Your task to perform on an android device: toggle sleep mode Image 0: 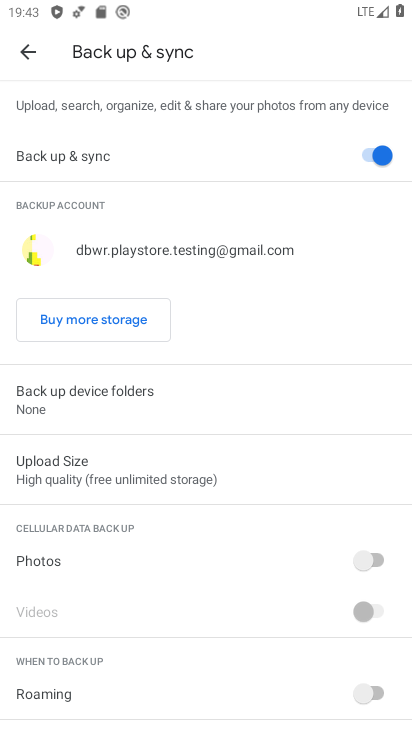
Step 0: press home button
Your task to perform on an android device: toggle sleep mode Image 1: 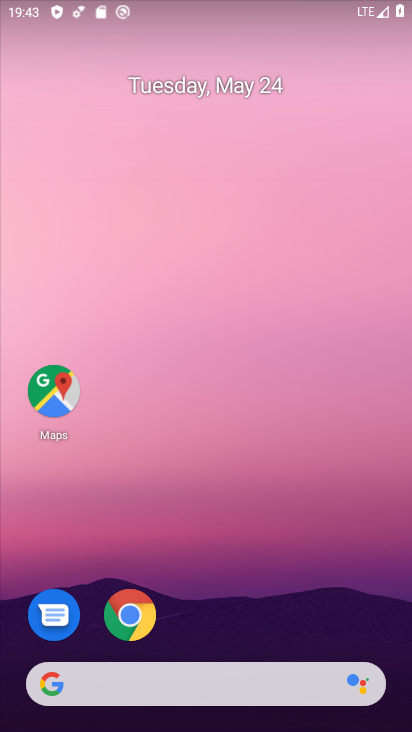
Step 1: drag from (173, 601) to (191, 215)
Your task to perform on an android device: toggle sleep mode Image 2: 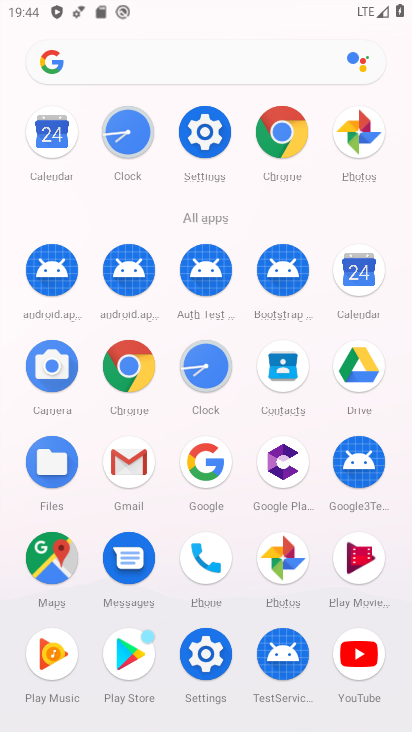
Step 2: click (195, 135)
Your task to perform on an android device: toggle sleep mode Image 3: 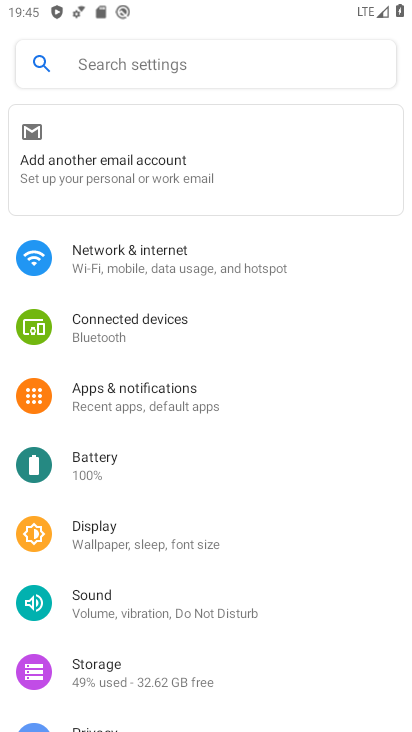
Step 3: task complete